Your task to perform on an android device: toggle translation in the chrome app Image 0: 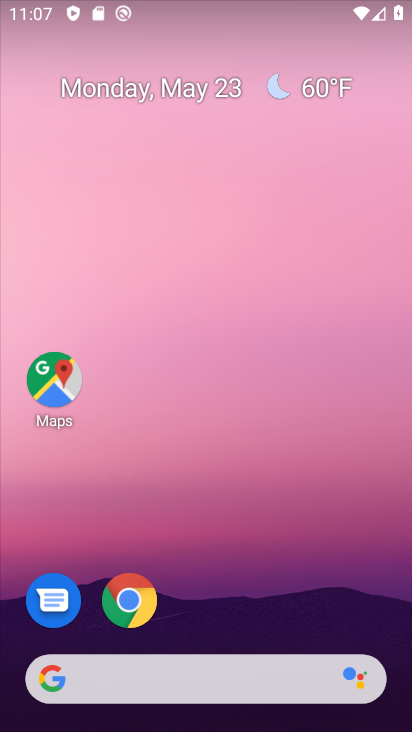
Step 0: press home button
Your task to perform on an android device: toggle translation in the chrome app Image 1: 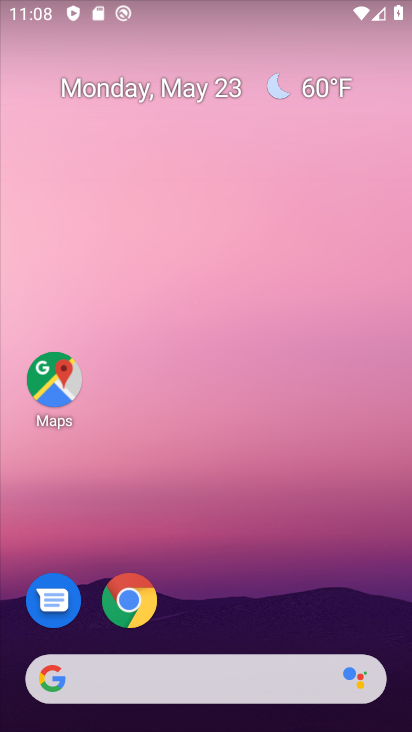
Step 1: drag from (236, 712) to (198, 50)
Your task to perform on an android device: toggle translation in the chrome app Image 2: 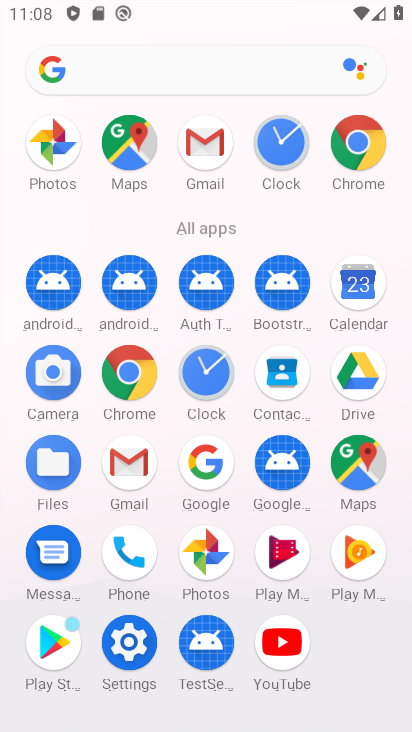
Step 2: click (356, 141)
Your task to perform on an android device: toggle translation in the chrome app Image 3: 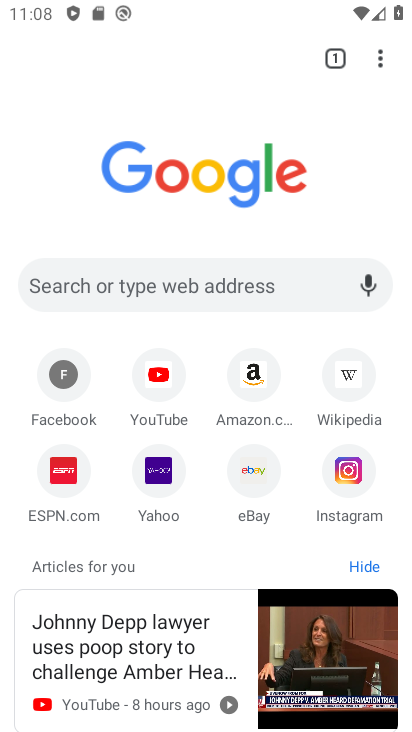
Step 3: click (376, 73)
Your task to perform on an android device: toggle translation in the chrome app Image 4: 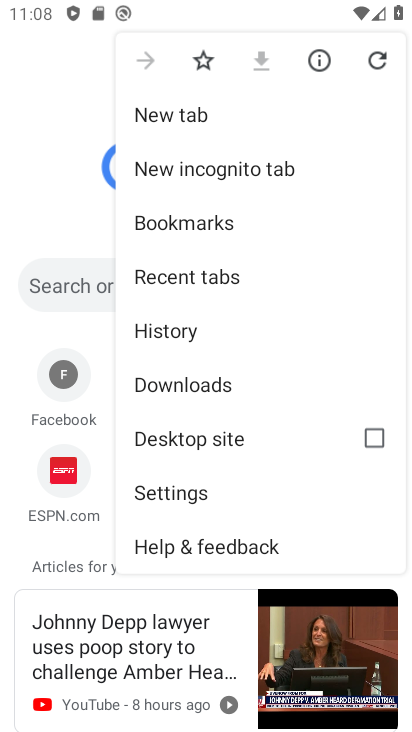
Step 4: click (167, 486)
Your task to perform on an android device: toggle translation in the chrome app Image 5: 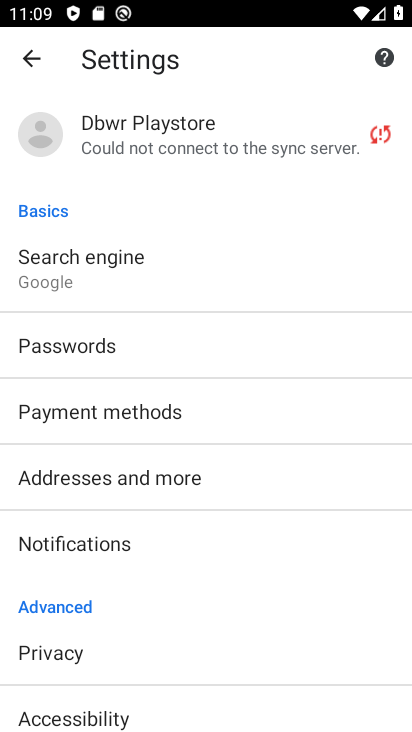
Step 5: drag from (118, 601) to (132, 308)
Your task to perform on an android device: toggle translation in the chrome app Image 6: 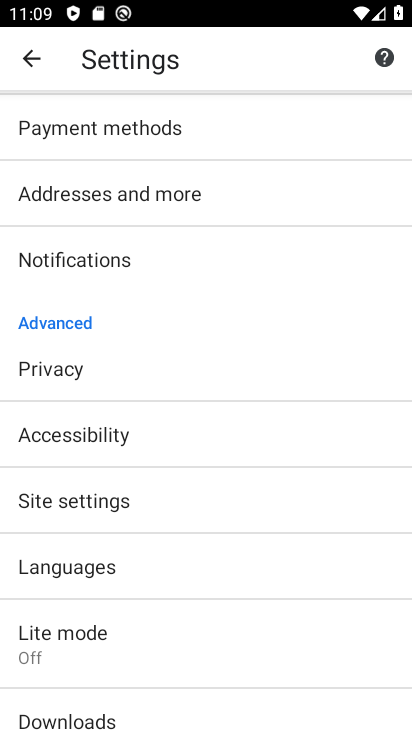
Step 6: click (90, 565)
Your task to perform on an android device: toggle translation in the chrome app Image 7: 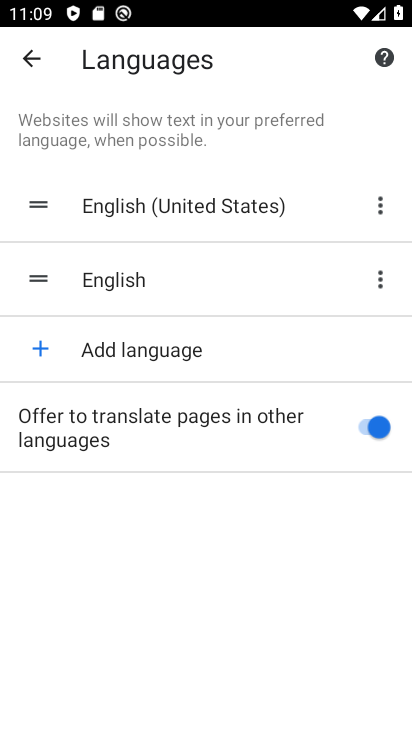
Step 7: task complete